Your task to perform on an android device: set default search engine in the chrome app Image 0: 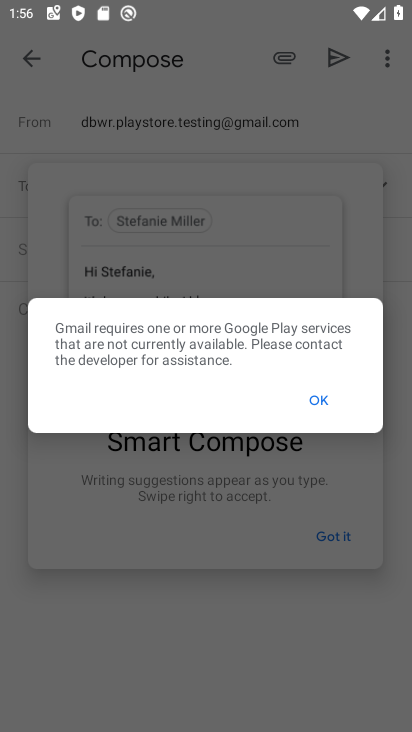
Step 0: press home button
Your task to perform on an android device: set default search engine in the chrome app Image 1: 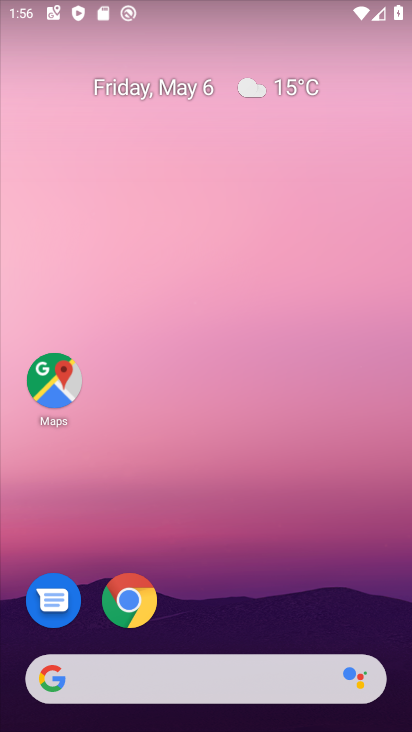
Step 1: drag from (350, 623) to (318, 86)
Your task to perform on an android device: set default search engine in the chrome app Image 2: 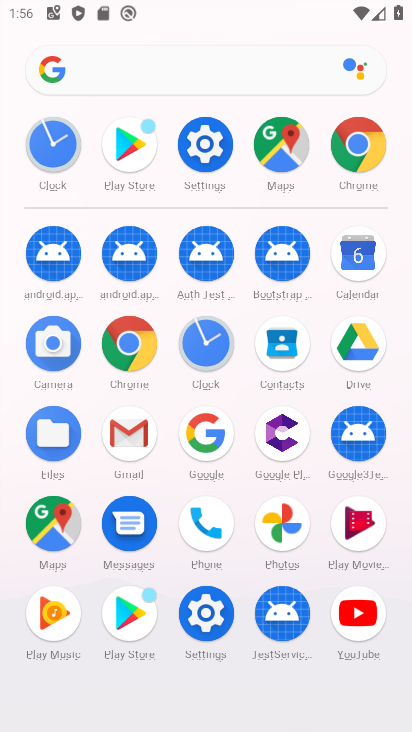
Step 2: click (372, 137)
Your task to perform on an android device: set default search engine in the chrome app Image 3: 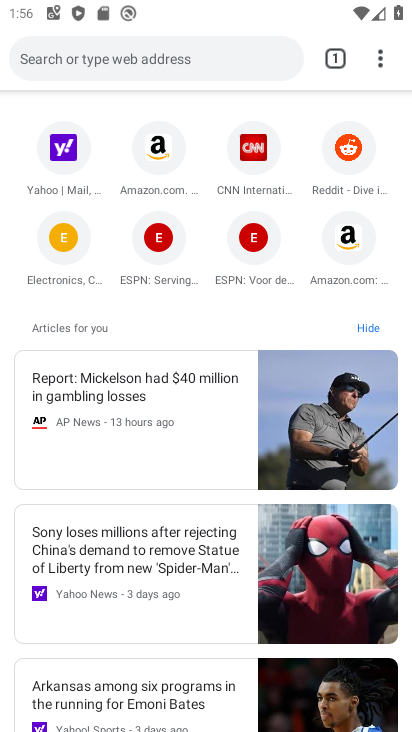
Step 3: click (381, 50)
Your task to perform on an android device: set default search engine in the chrome app Image 4: 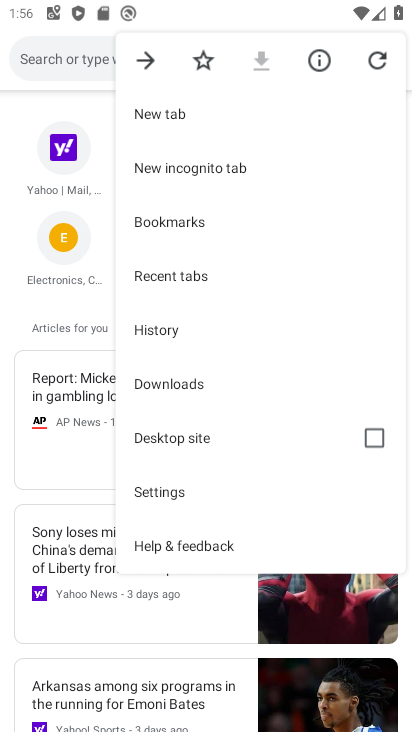
Step 4: click (186, 489)
Your task to perform on an android device: set default search engine in the chrome app Image 5: 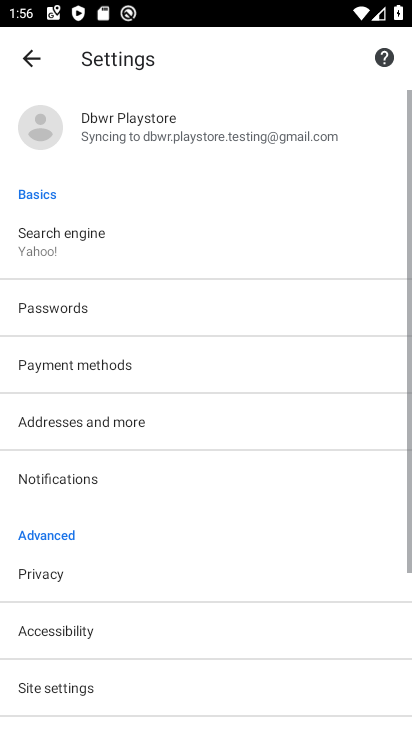
Step 5: click (147, 253)
Your task to perform on an android device: set default search engine in the chrome app Image 6: 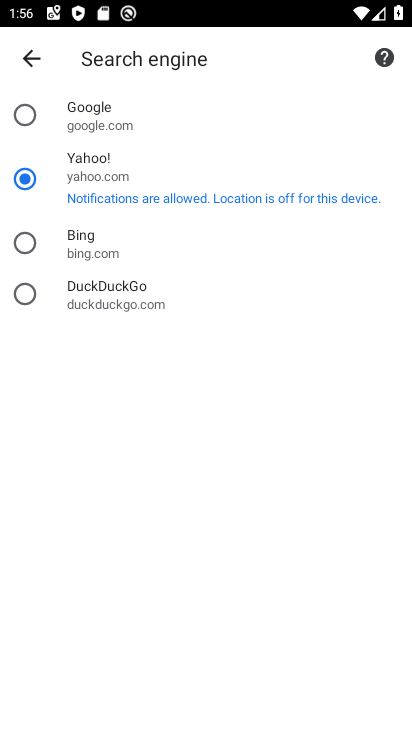
Step 6: click (152, 91)
Your task to perform on an android device: set default search engine in the chrome app Image 7: 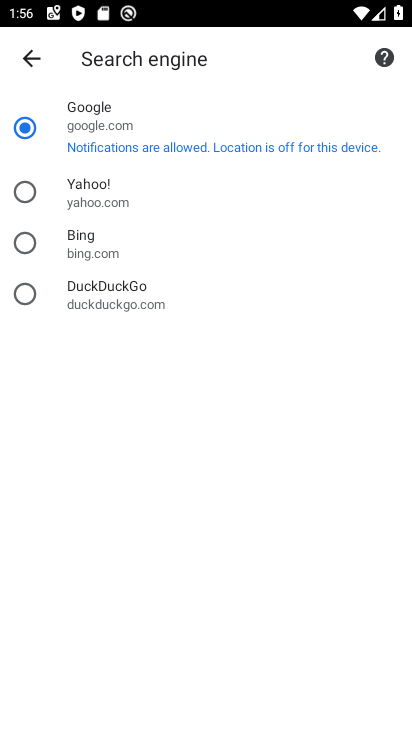
Step 7: task complete